Your task to perform on an android device: choose inbox layout in the gmail app Image 0: 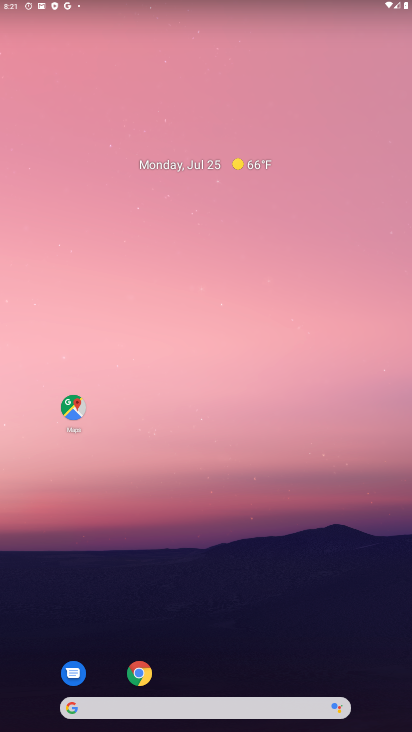
Step 0: click (386, 75)
Your task to perform on an android device: choose inbox layout in the gmail app Image 1: 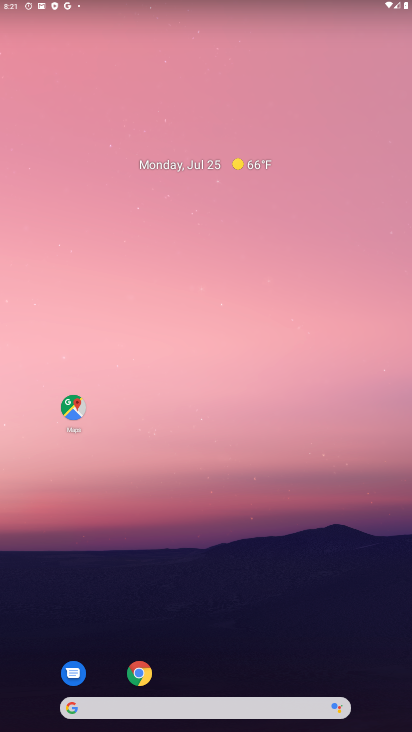
Step 1: drag from (231, 633) to (308, 188)
Your task to perform on an android device: choose inbox layout in the gmail app Image 2: 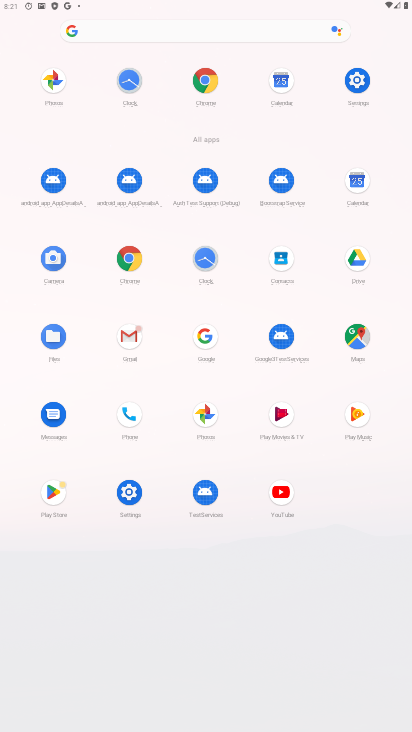
Step 2: click (137, 334)
Your task to perform on an android device: choose inbox layout in the gmail app Image 3: 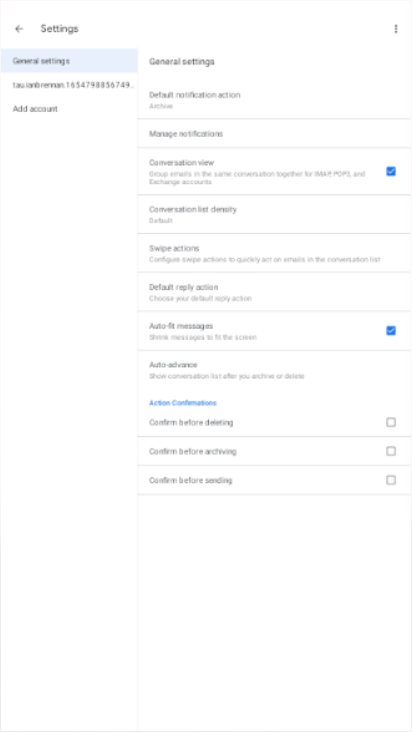
Step 3: click (136, 333)
Your task to perform on an android device: choose inbox layout in the gmail app Image 4: 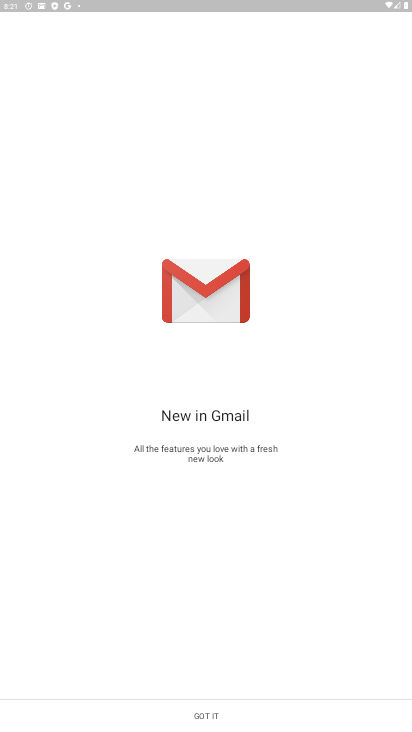
Step 4: click (197, 710)
Your task to perform on an android device: choose inbox layout in the gmail app Image 5: 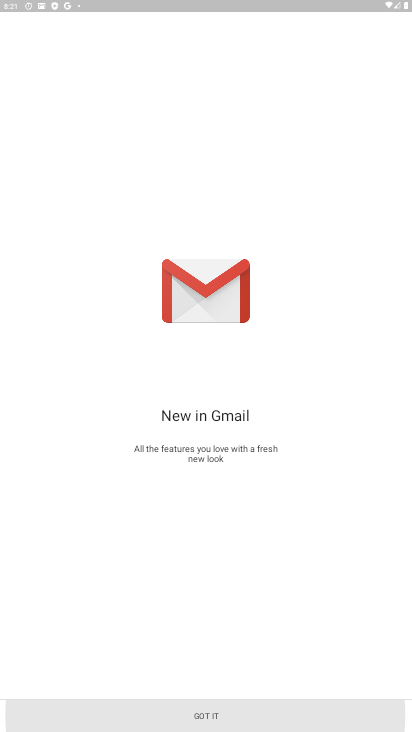
Step 5: click (197, 709)
Your task to perform on an android device: choose inbox layout in the gmail app Image 6: 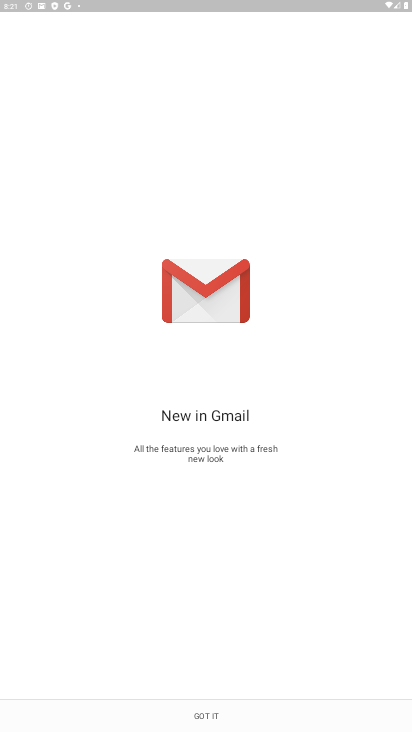
Step 6: click (197, 707)
Your task to perform on an android device: choose inbox layout in the gmail app Image 7: 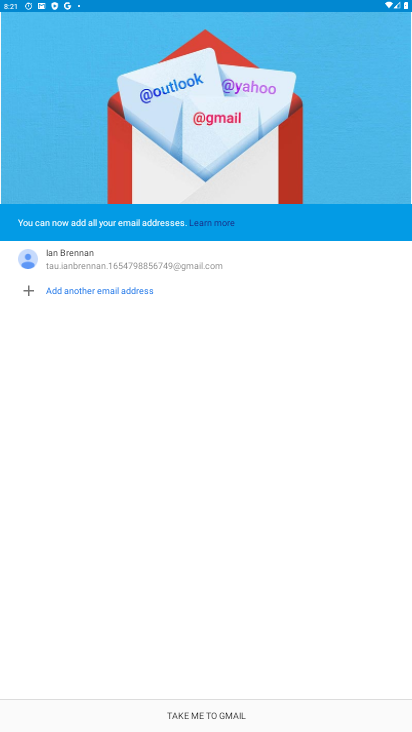
Step 7: click (190, 703)
Your task to perform on an android device: choose inbox layout in the gmail app Image 8: 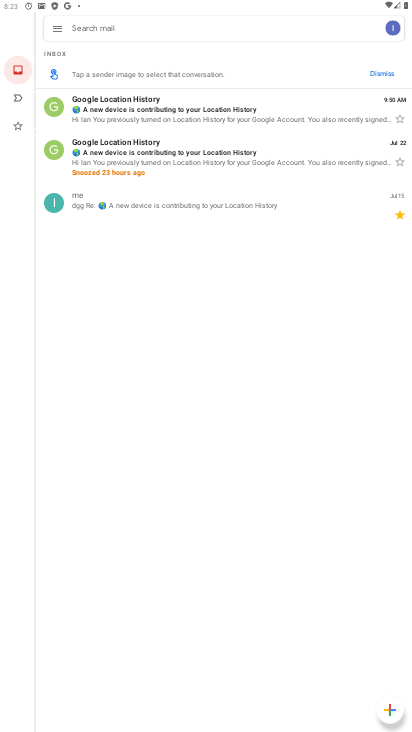
Step 8: drag from (292, 575) to (410, 263)
Your task to perform on an android device: choose inbox layout in the gmail app Image 9: 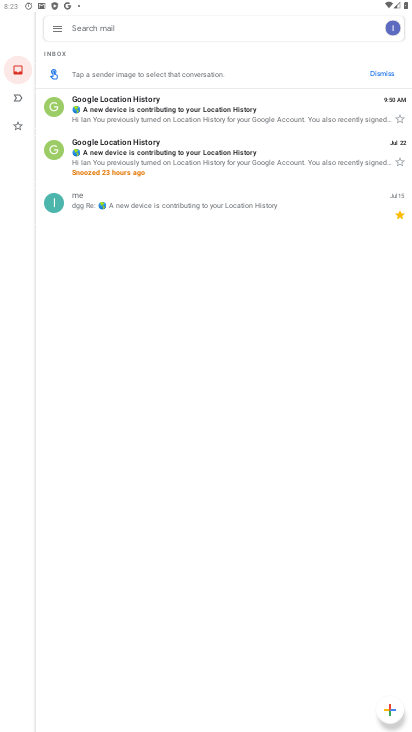
Step 9: click (54, 29)
Your task to perform on an android device: choose inbox layout in the gmail app Image 10: 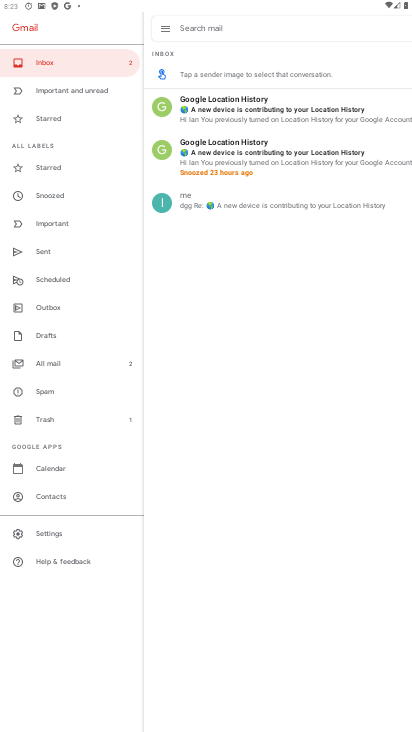
Step 10: click (56, 58)
Your task to perform on an android device: choose inbox layout in the gmail app Image 11: 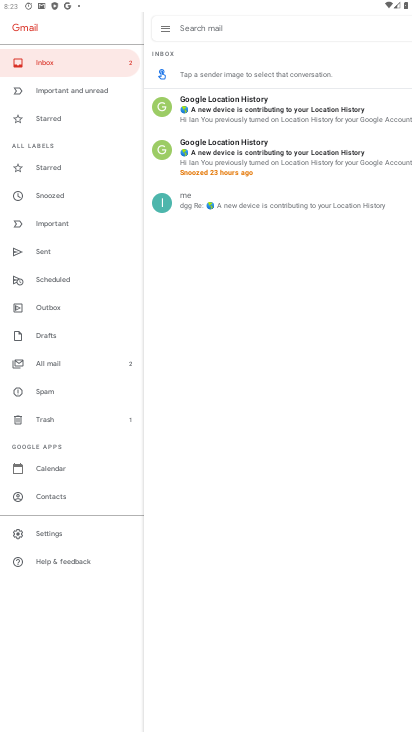
Step 11: task complete